Your task to perform on an android device: Open Chrome and go to the settings page Image 0: 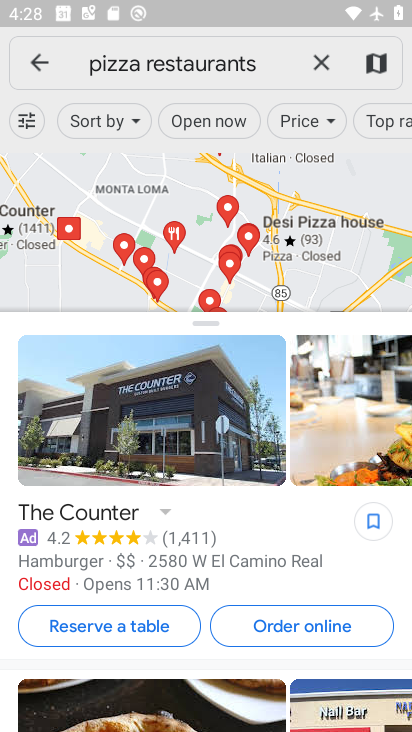
Step 0: click (28, 55)
Your task to perform on an android device: Open Chrome and go to the settings page Image 1: 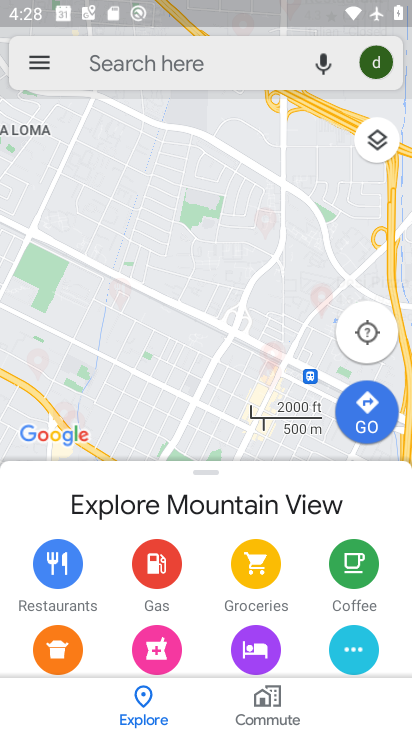
Step 1: press home button
Your task to perform on an android device: Open Chrome and go to the settings page Image 2: 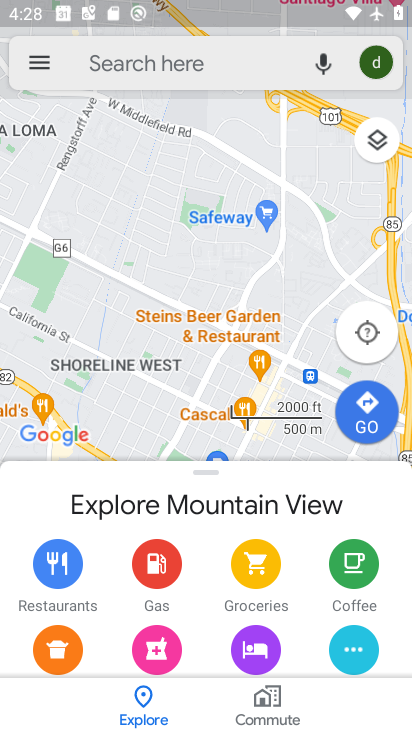
Step 2: press home button
Your task to perform on an android device: Open Chrome and go to the settings page Image 3: 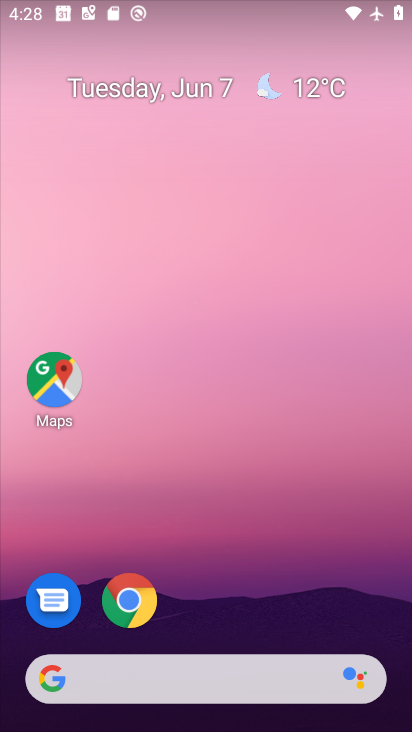
Step 3: click (128, 603)
Your task to perform on an android device: Open Chrome and go to the settings page Image 4: 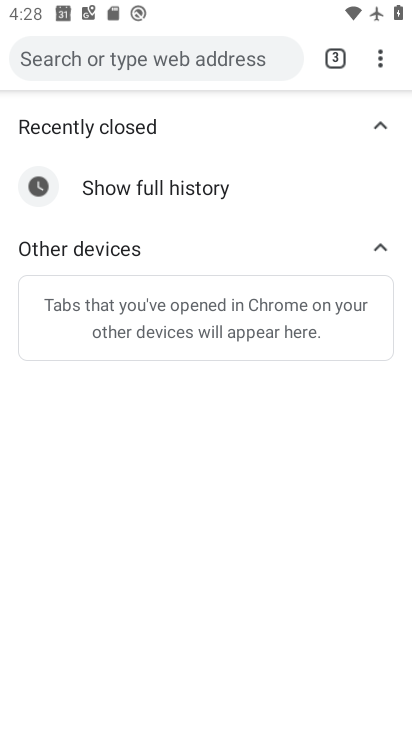
Step 4: task complete